Your task to perform on an android device: turn on bluetooth scan Image 0: 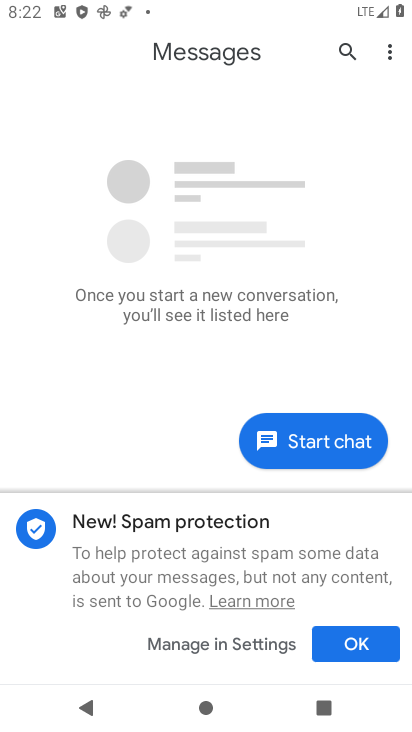
Step 0: click (333, 649)
Your task to perform on an android device: turn on bluetooth scan Image 1: 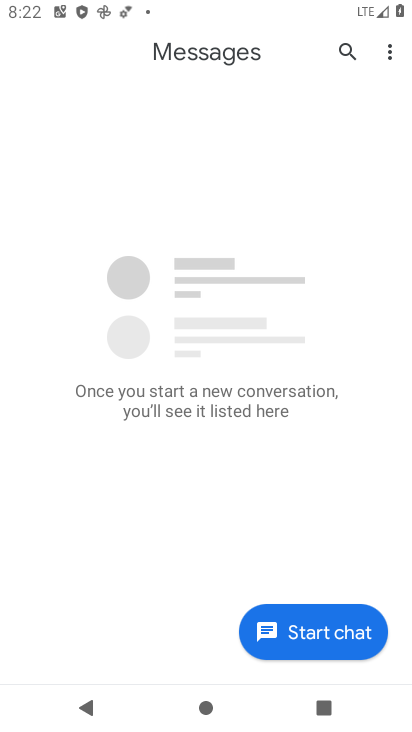
Step 1: task complete